Your task to perform on an android device: Check the weather Image 0: 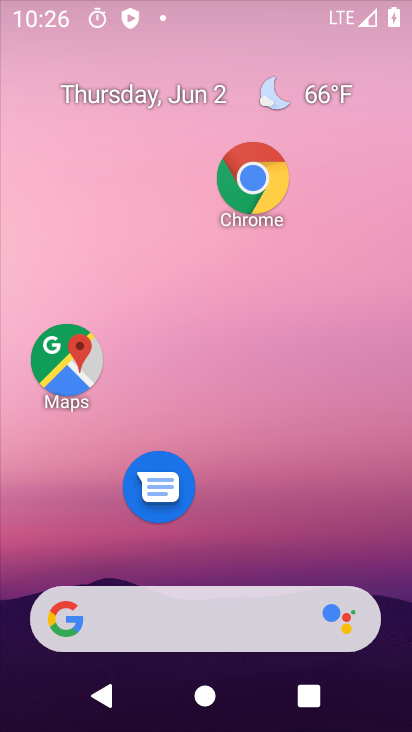
Step 0: drag from (239, 718) to (253, 122)
Your task to perform on an android device: Check the weather Image 1: 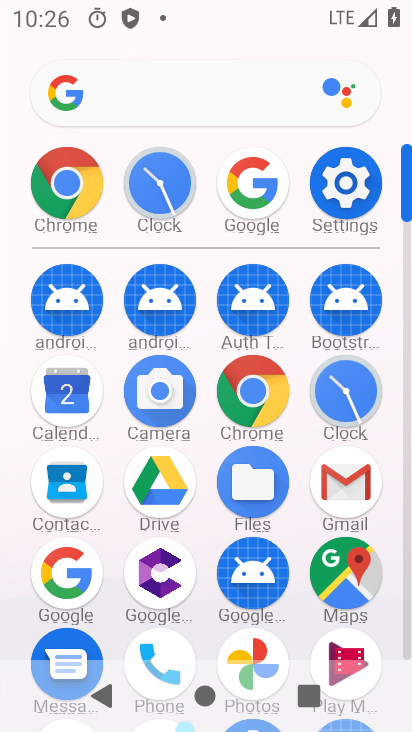
Step 1: click (76, 572)
Your task to perform on an android device: Check the weather Image 2: 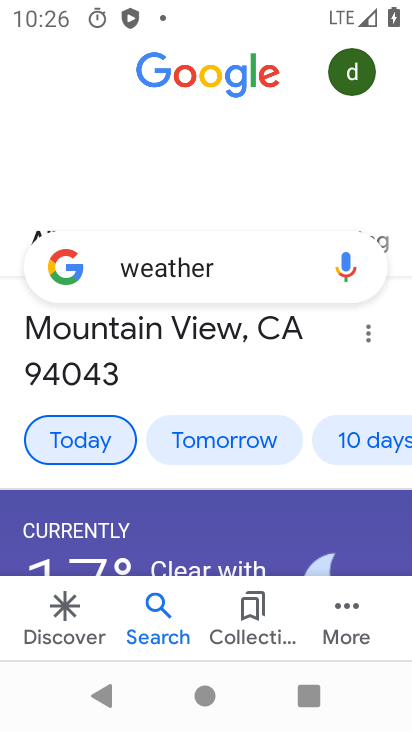
Step 2: click (91, 448)
Your task to perform on an android device: Check the weather Image 3: 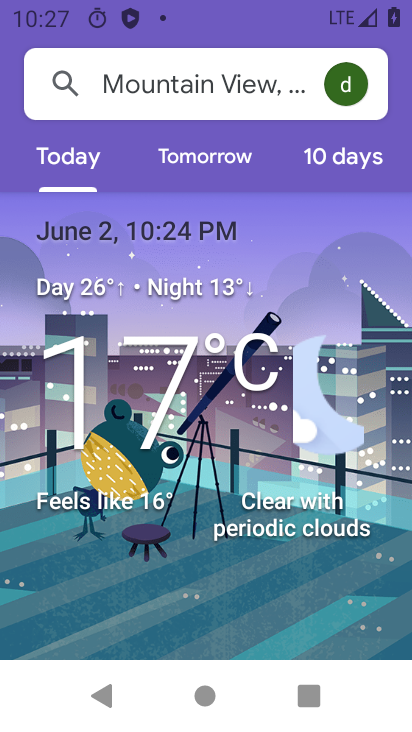
Step 3: task complete